Your task to perform on an android device: Open display settings Image 0: 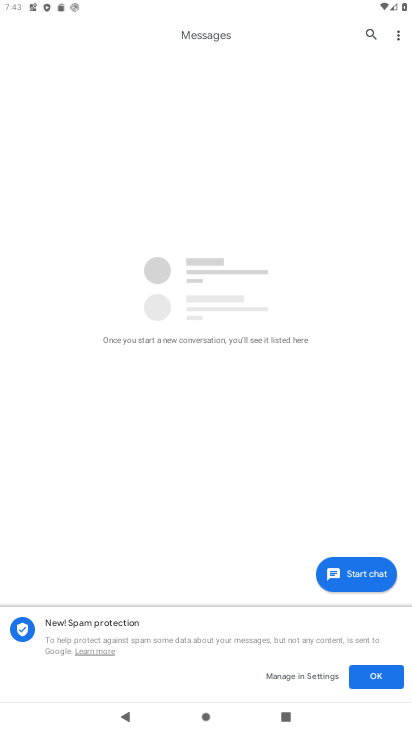
Step 0: press home button
Your task to perform on an android device: Open display settings Image 1: 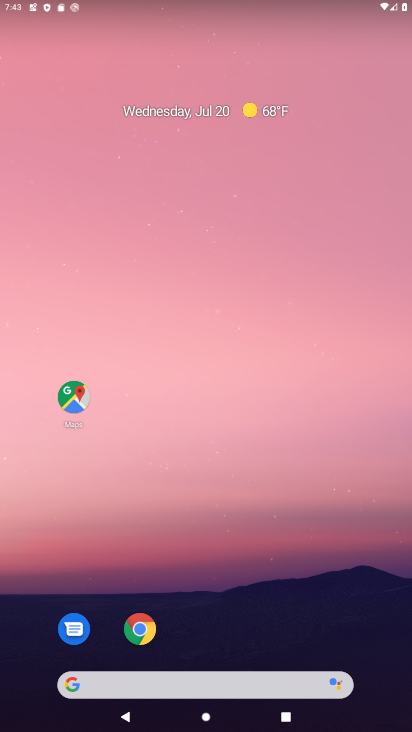
Step 1: drag from (329, 601) to (382, 137)
Your task to perform on an android device: Open display settings Image 2: 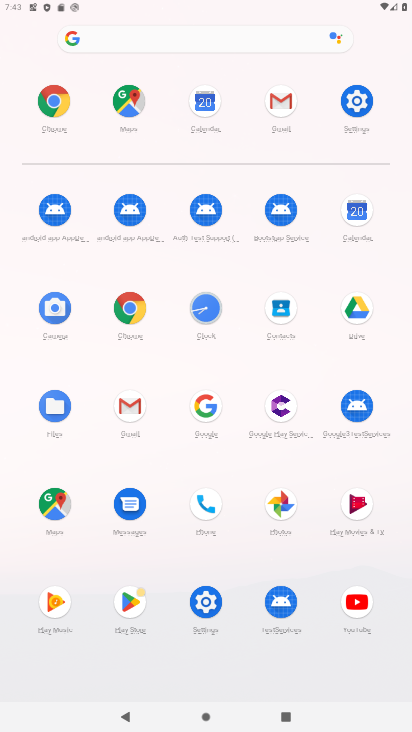
Step 2: click (202, 602)
Your task to perform on an android device: Open display settings Image 3: 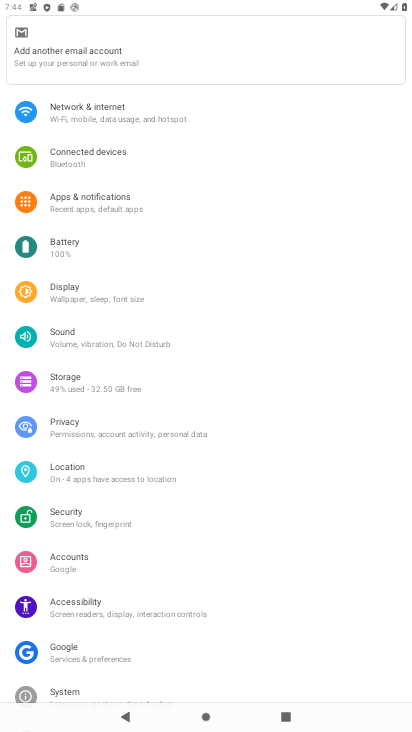
Step 3: drag from (347, 466) to (333, 382)
Your task to perform on an android device: Open display settings Image 4: 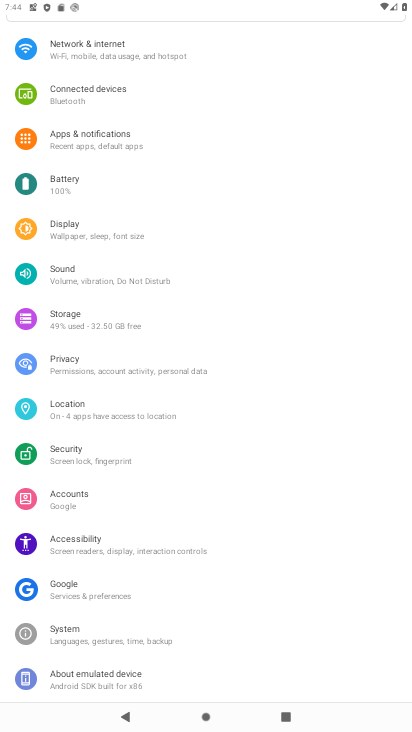
Step 4: drag from (329, 489) to (351, 376)
Your task to perform on an android device: Open display settings Image 5: 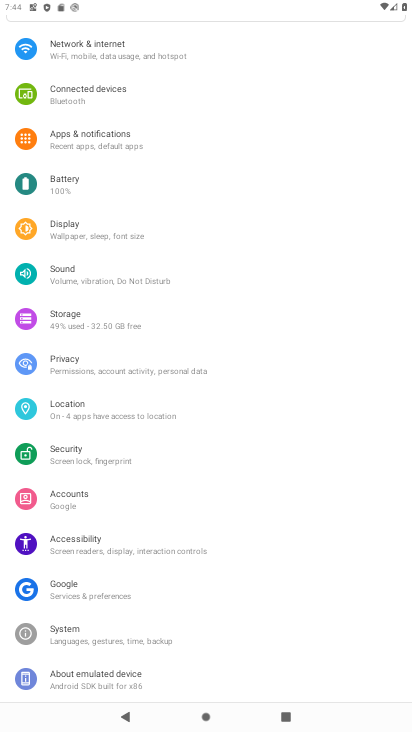
Step 5: drag from (342, 253) to (307, 457)
Your task to perform on an android device: Open display settings Image 6: 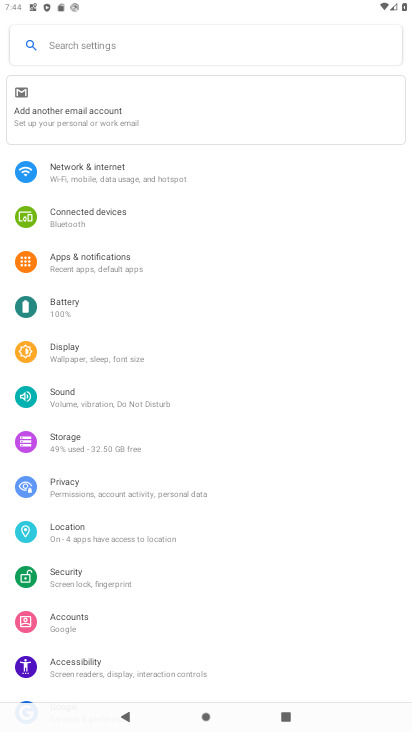
Step 6: click (128, 345)
Your task to perform on an android device: Open display settings Image 7: 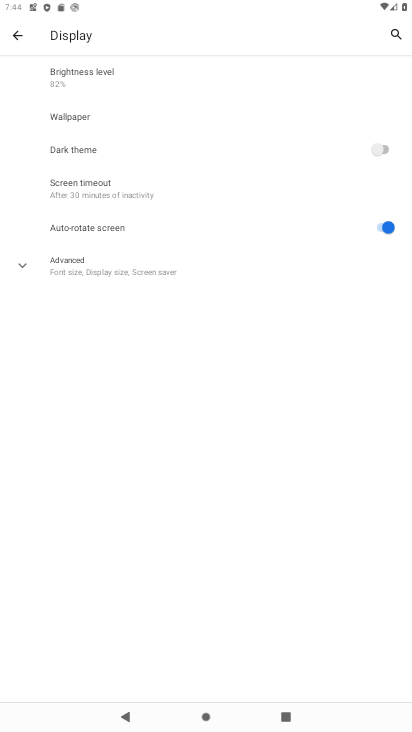
Step 7: click (176, 262)
Your task to perform on an android device: Open display settings Image 8: 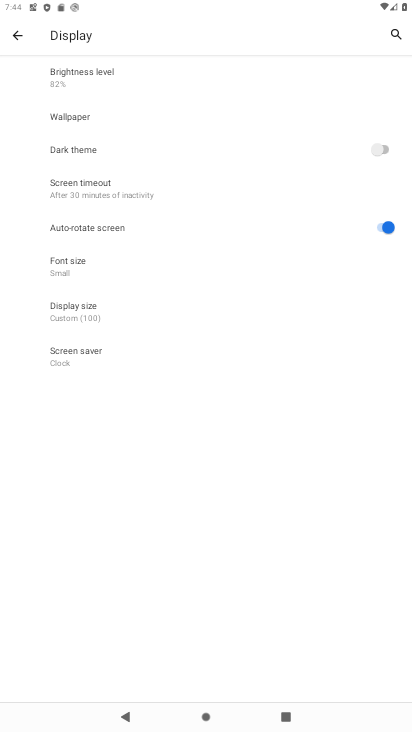
Step 8: task complete